Your task to perform on an android device: Play the last video I watched on Youtube Image 0: 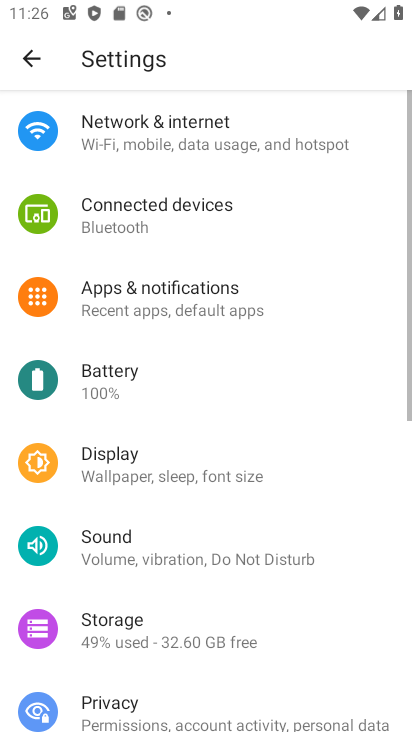
Step 0: press home button
Your task to perform on an android device: Play the last video I watched on Youtube Image 1: 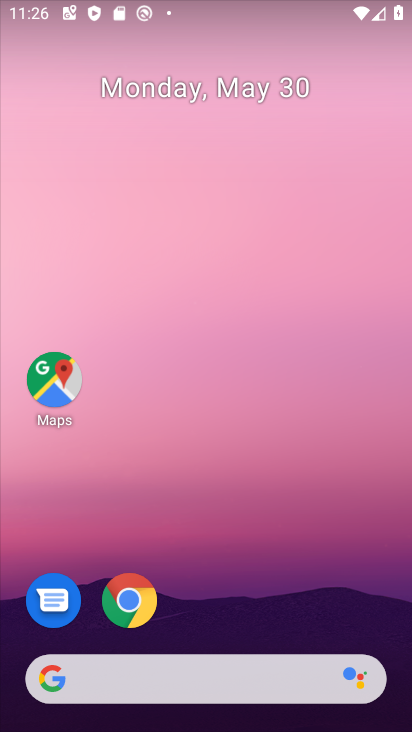
Step 1: drag from (213, 725) to (191, 2)
Your task to perform on an android device: Play the last video I watched on Youtube Image 2: 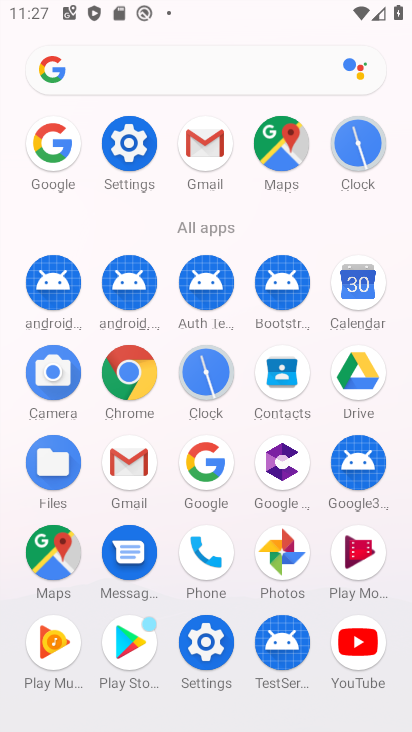
Step 2: click (354, 640)
Your task to perform on an android device: Play the last video I watched on Youtube Image 3: 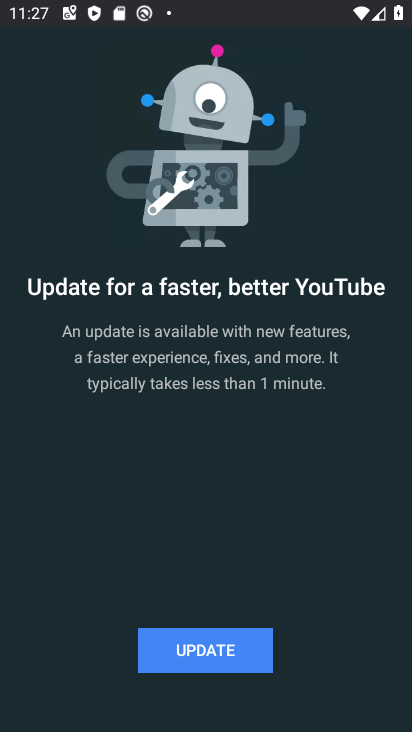
Step 3: click (198, 654)
Your task to perform on an android device: Play the last video I watched on Youtube Image 4: 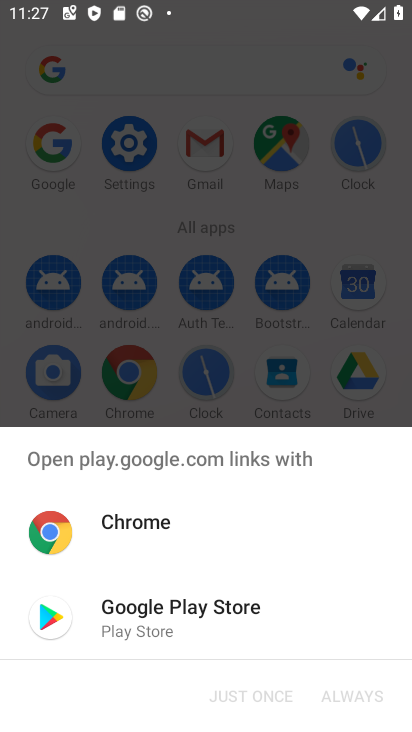
Step 4: click (155, 609)
Your task to perform on an android device: Play the last video I watched on Youtube Image 5: 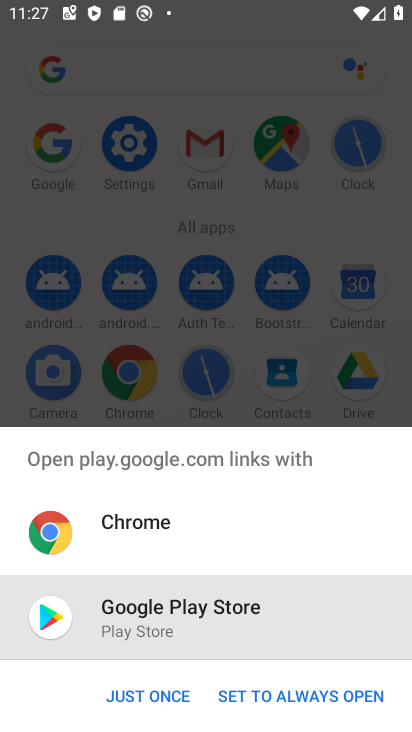
Step 5: click (132, 691)
Your task to perform on an android device: Play the last video I watched on Youtube Image 6: 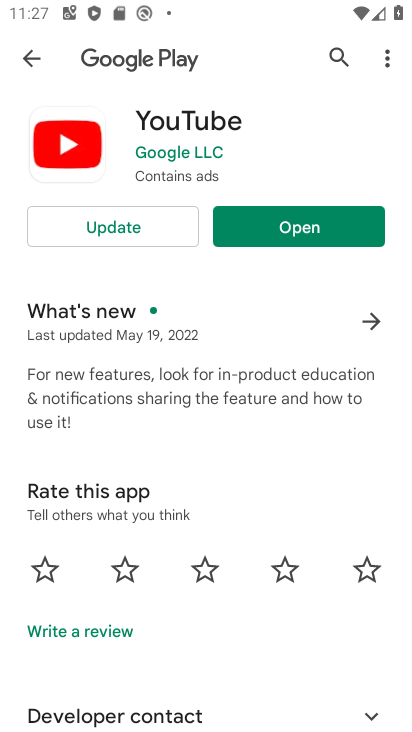
Step 6: click (138, 224)
Your task to perform on an android device: Play the last video I watched on Youtube Image 7: 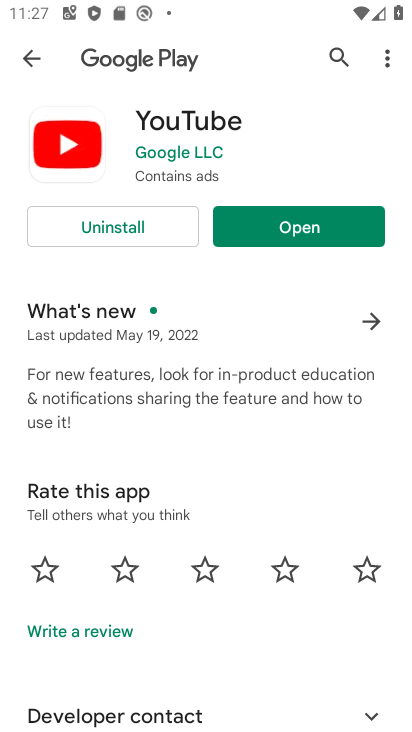
Step 7: click (264, 232)
Your task to perform on an android device: Play the last video I watched on Youtube Image 8: 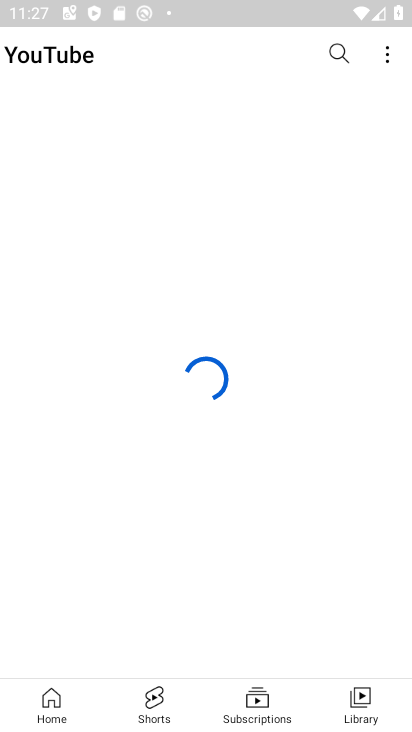
Step 8: click (364, 695)
Your task to perform on an android device: Play the last video I watched on Youtube Image 9: 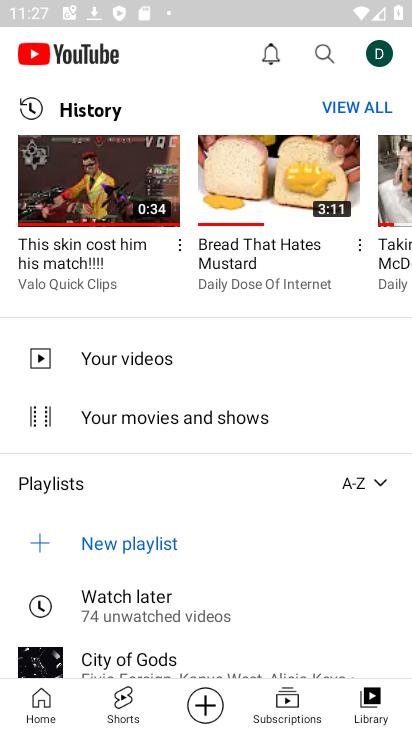
Step 9: click (83, 187)
Your task to perform on an android device: Play the last video I watched on Youtube Image 10: 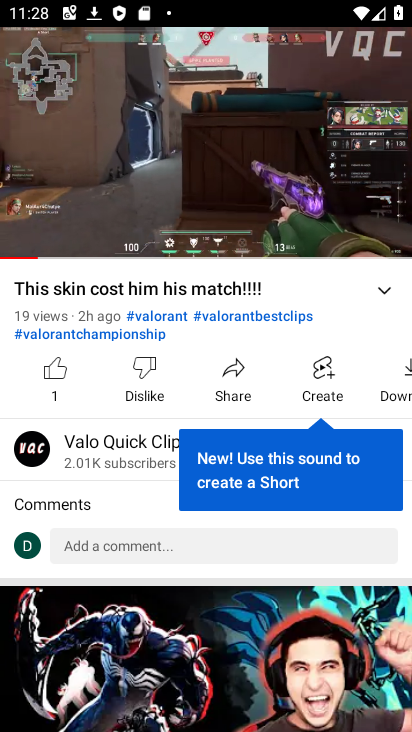
Step 10: task complete